Your task to perform on an android device: delete a single message in the gmail app Image 0: 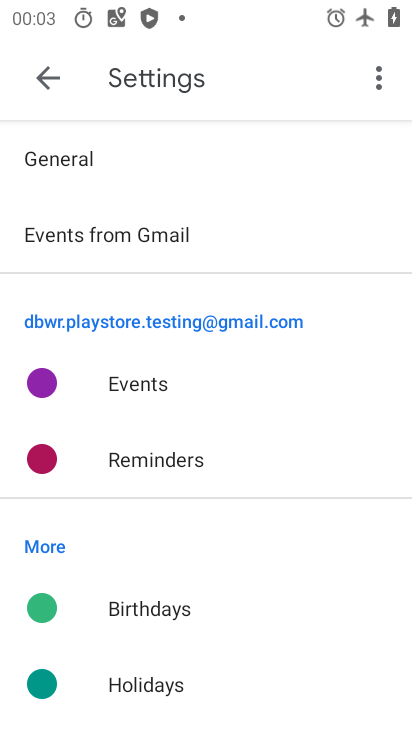
Step 0: press home button
Your task to perform on an android device: delete a single message in the gmail app Image 1: 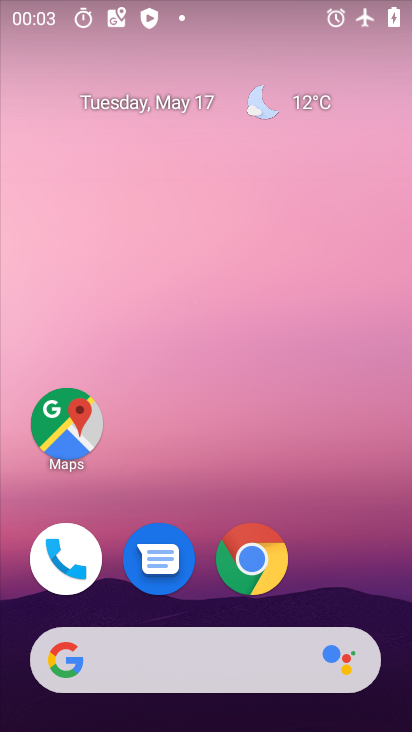
Step 1: drag from (340, 503) to (354, 51)
Your task to perform on an android device: delete a single message in the gmail app Image 2: 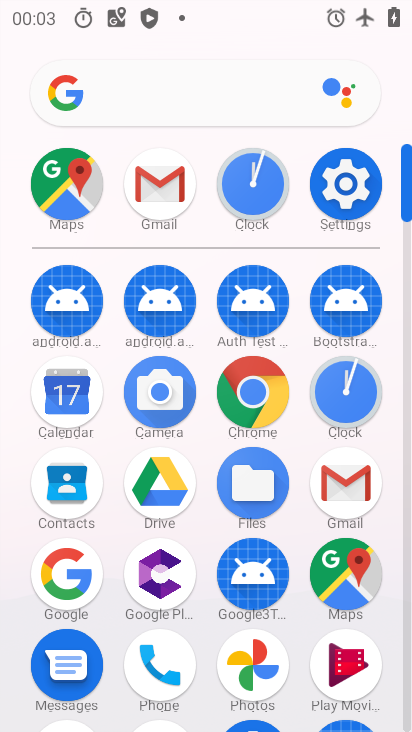
Step 2: click (339, 496)
Your task to perform on an android device: delete a single message in the gmail app Image 3: 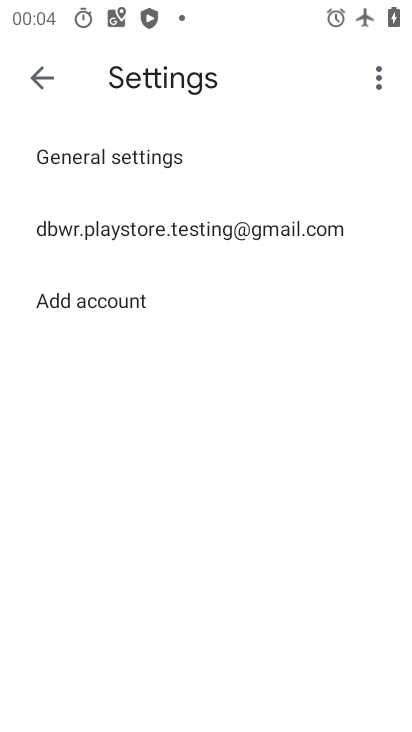
Step 3: click (48, 60)
Your task to perform on an android device: delete a single message in the gmail app Image 4: 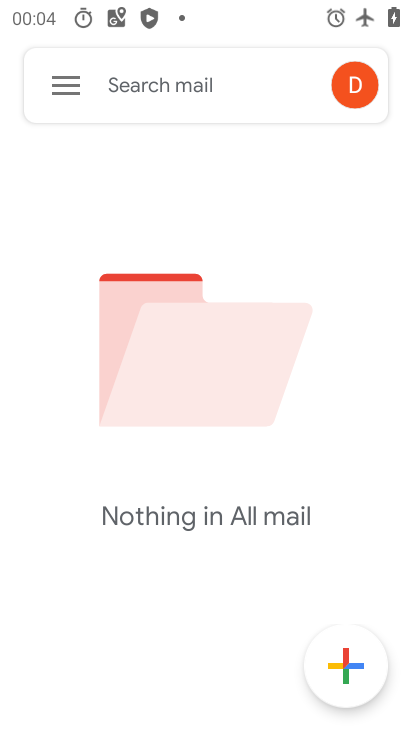
Step 4: click (56, 76)
Your task to perform on an android device: delete a single message in the gmail app Image 5: 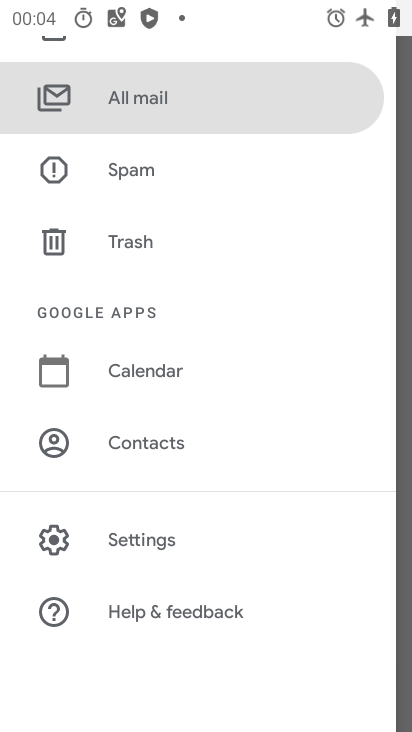
Step 5: click (215, 100)
Your task to perform on an android device: delete a single message in the gmail app Image 6: 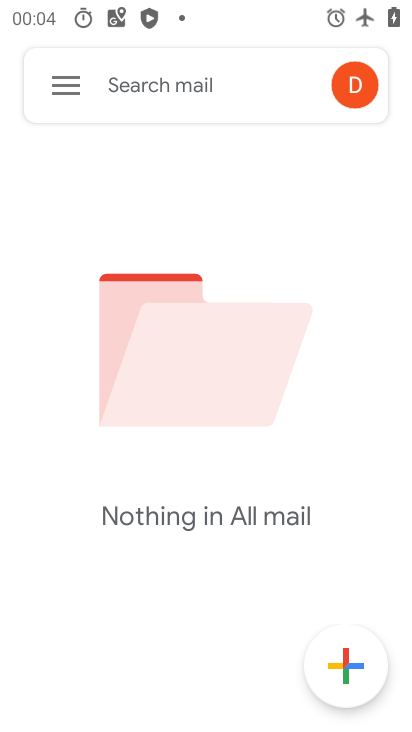
Step 6: task complete